Your task to perform on an android device: Go to Reddit.com Image 0: 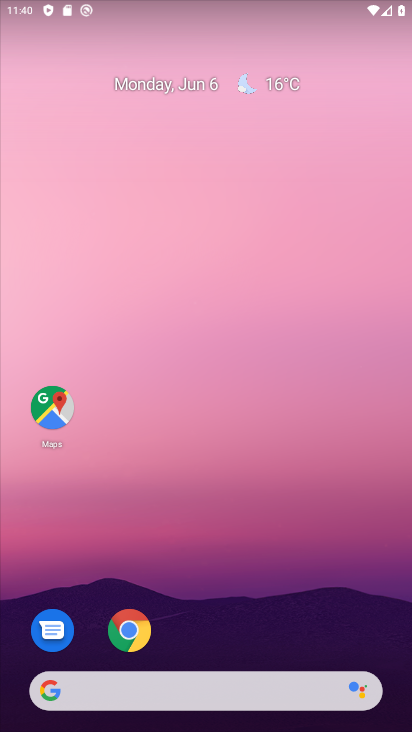
Step 0: click (130, 626)
Your task to perform on an android device: Go to Reddit.com Image 1: 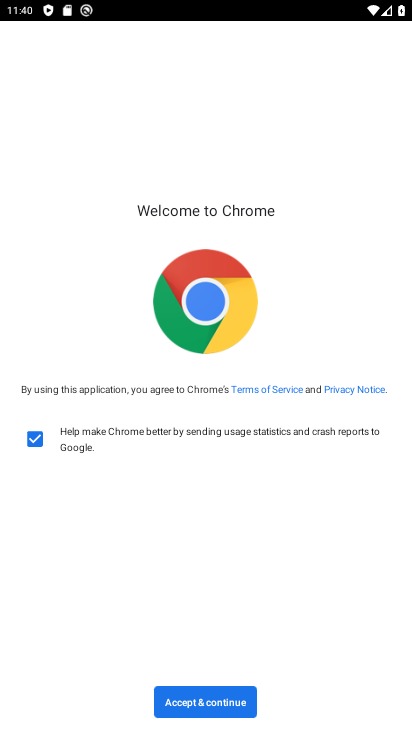
Step 1: click (218, 698)
Your task to perform on an android device: Go to Reddit.com Image 2: 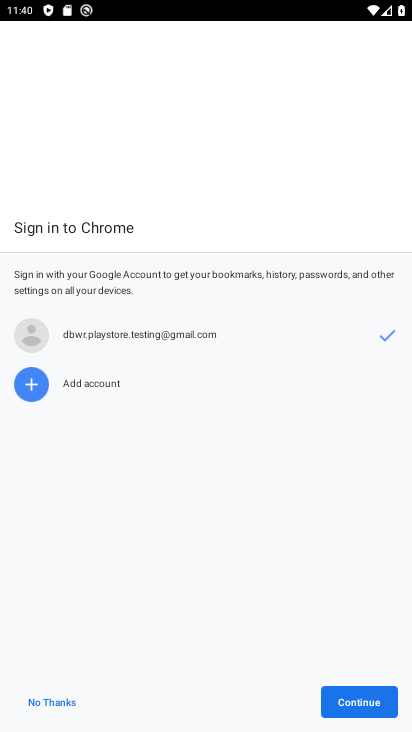
Step 2: click (341, 697)
Your task to perform on an android device: Go to Reddit.com Image 3: 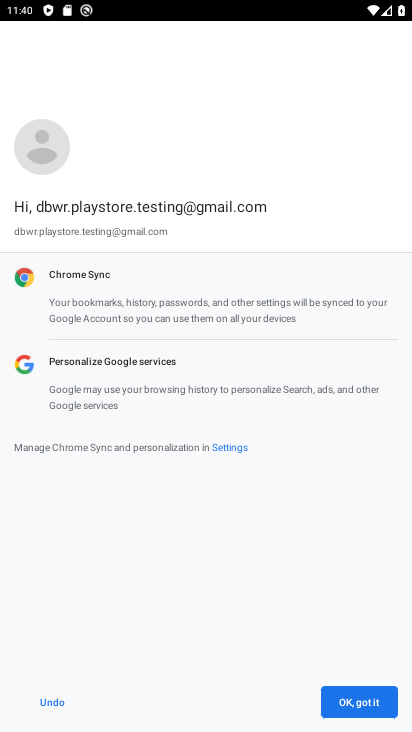
Step 3: click (364, 702)
Your task to perform on an android device: Go to Reddit.com Image 4: 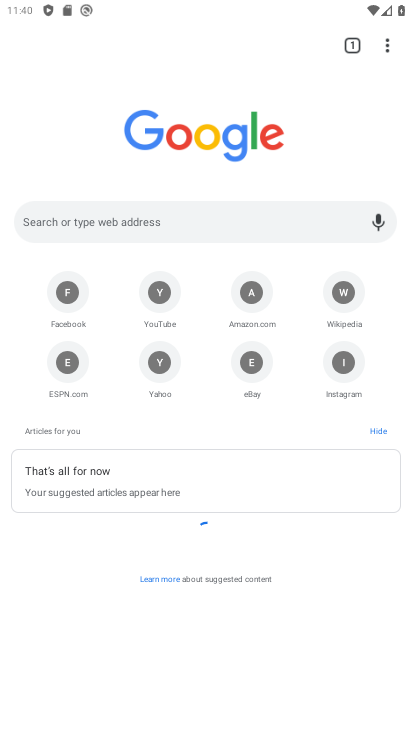
Step 4: click (114, 216)
Your task to perform on an android device: Go to Reddit.com Image 5: 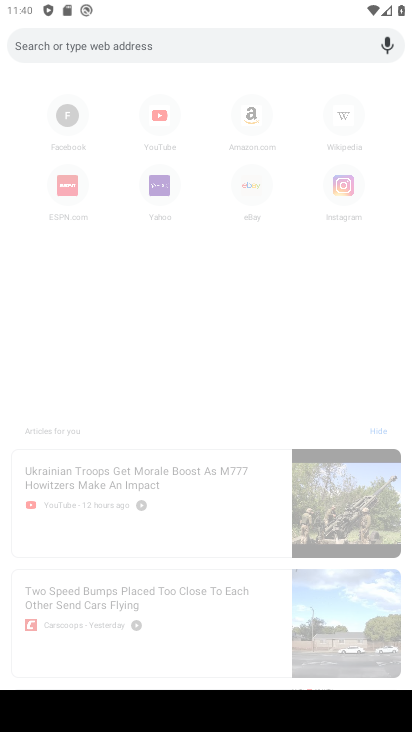
Step 5: type "reddit.com"
Your task to perform on an android device: Go to Reddit.com Image 6: 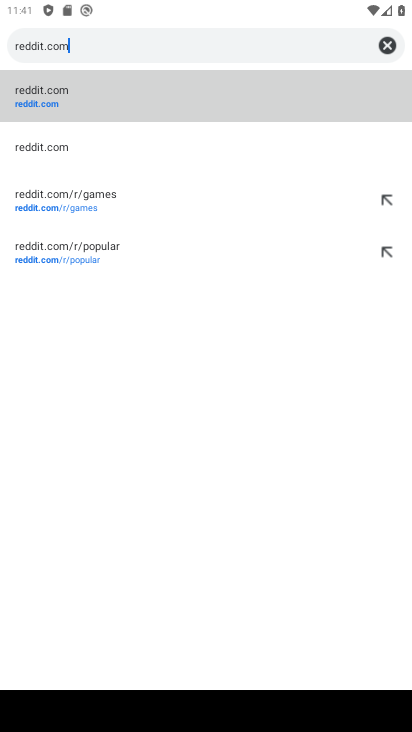
Step 6: click (74, 101)
Your task to perform on an android device: Go to Reddit.com Image 7: 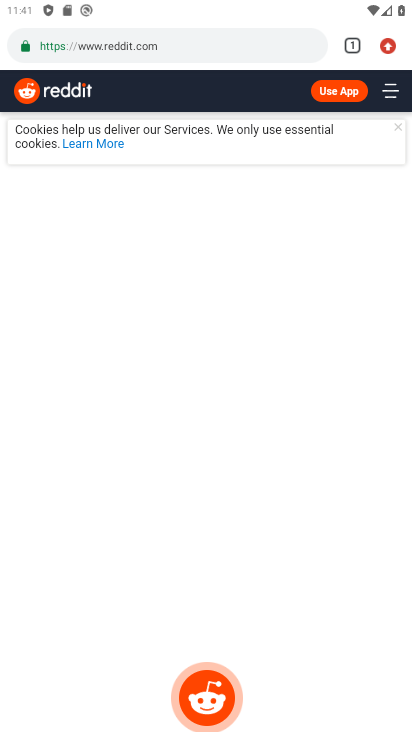
Step 7: task complete